Your task to perform on an android device: Search for the most popular coffee table on Crate & Barrel Image 0: 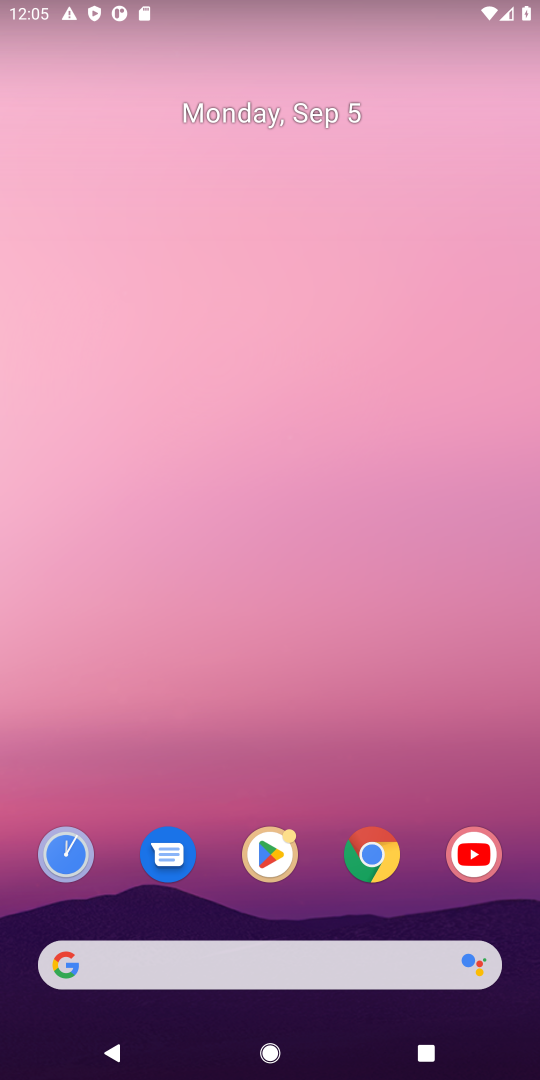
Step 0: press home button
Your task to perform on an android device: Search for the most popular coffee table on Crate & Barrel Image 1: 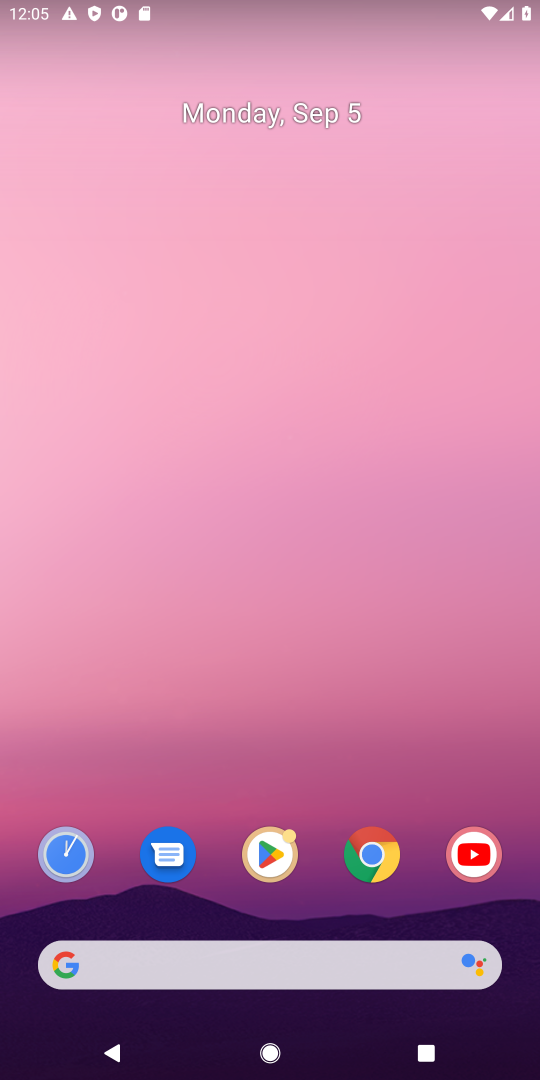
Step 1: click (377, 956)
Your task to perform on an android device: Search for the most popular coffee table on Crate & Barrel Image 2: 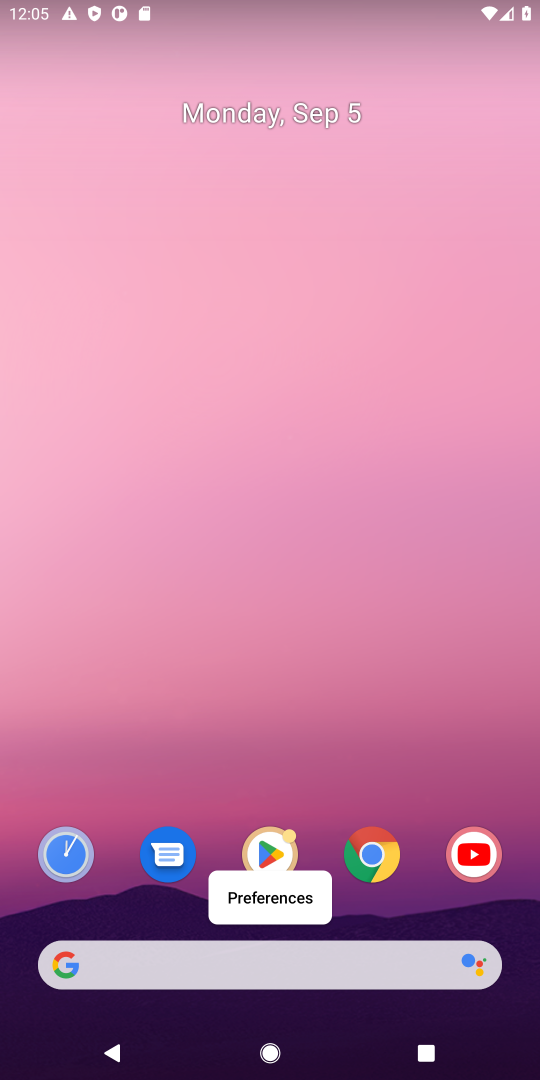
Step 2: click (220, 955)
Your task to perform on an android device: Search for the most popular coffee table on Crate & Barrel Image 3: 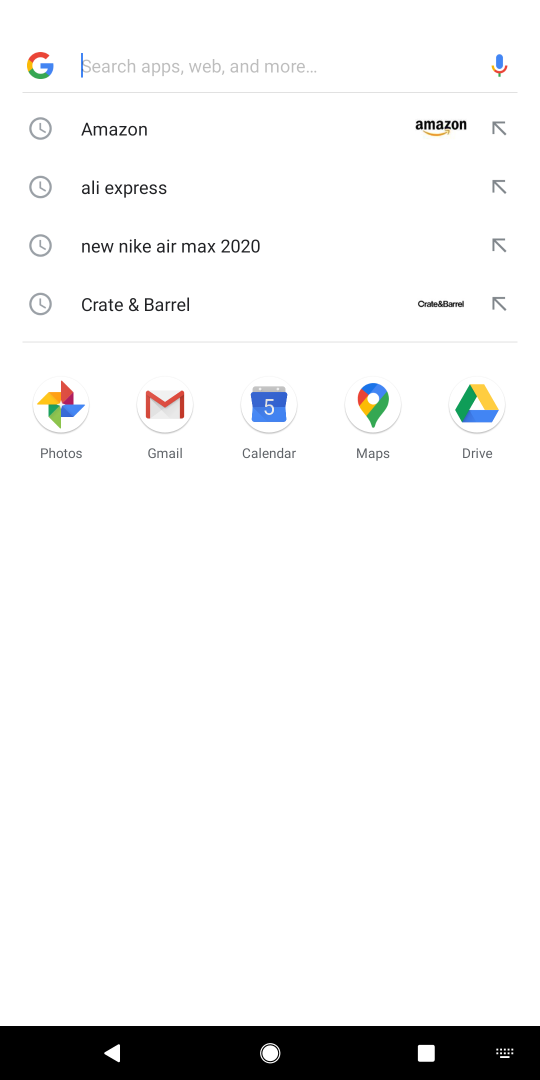
Step 3: type "crate barrel"
Your task to perform on an android device: Search for the most popular coffee table on Crate & Barrel Image 4: 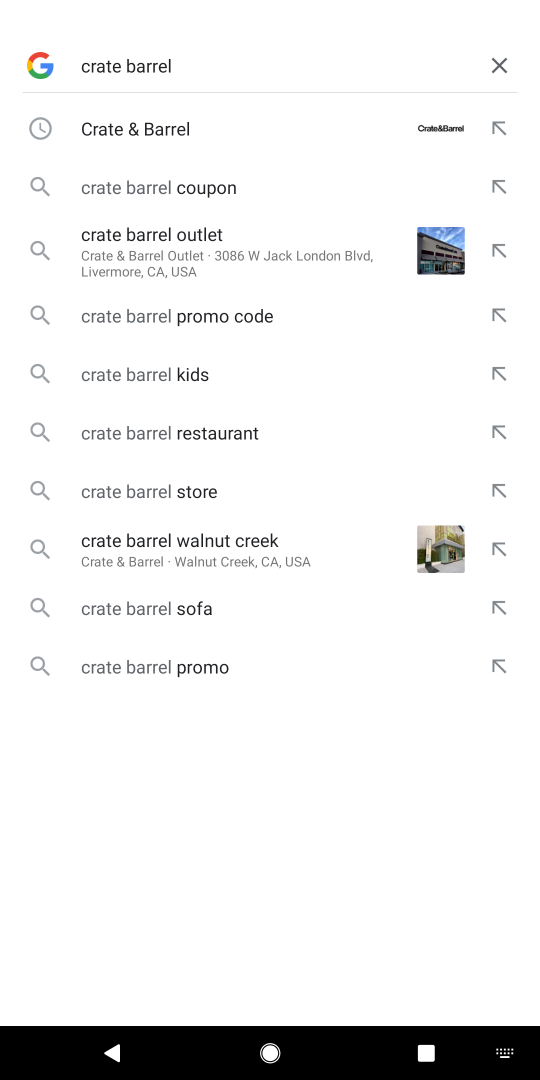
Step 4: press enter
Your task to perform on an android device: Search for the most popular coffee table on Crate & Barrel Image 5: 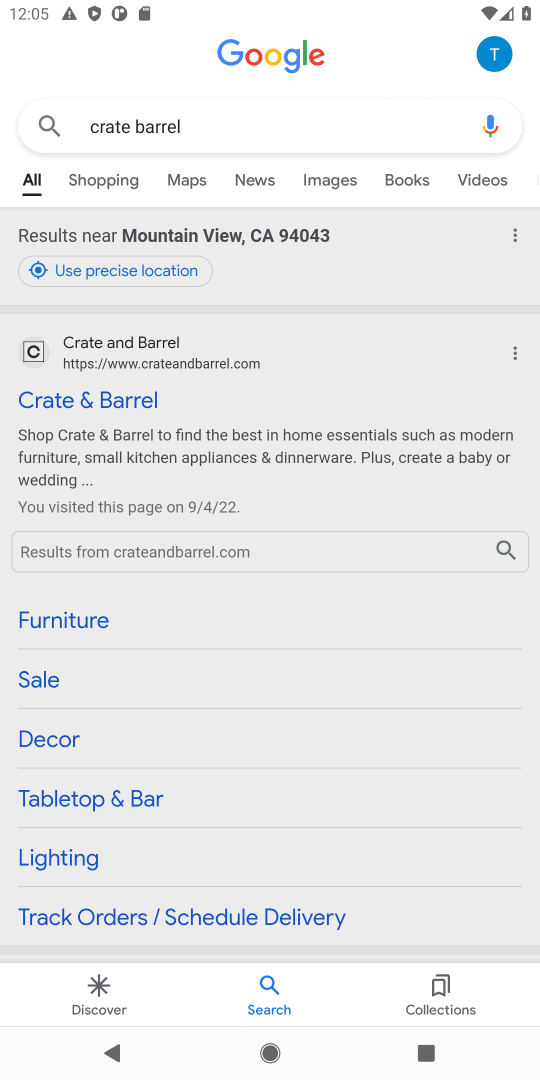
Step 5: click (134, 403)
Your task to perform on an android device: Search for the most popular coffee table on Crate & Barrel Image 6: 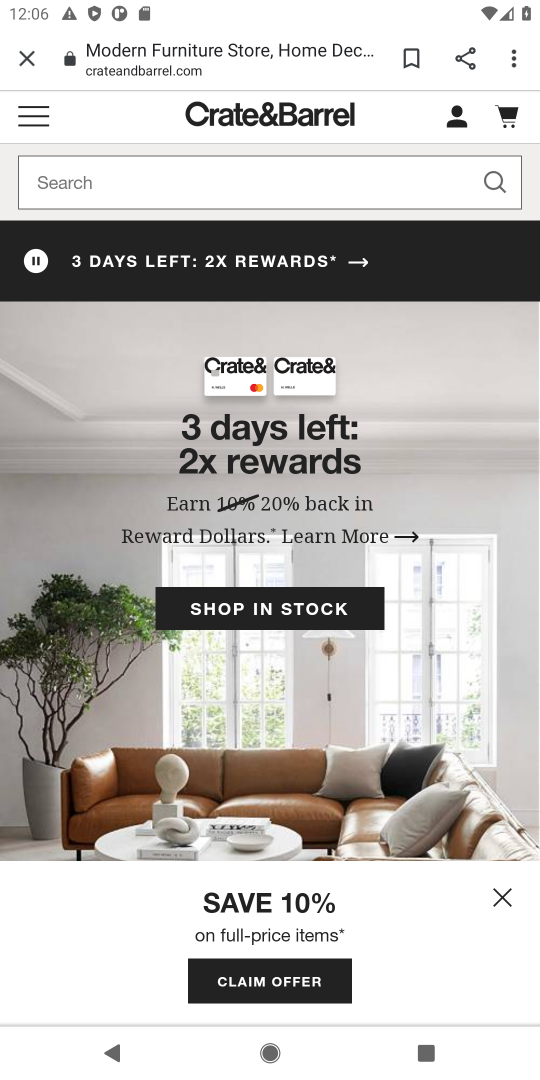
Step 6: click (181, 178)
Your task to perform on an android device: Search for the most popular coffee table on Crate & Barrel Image 7: 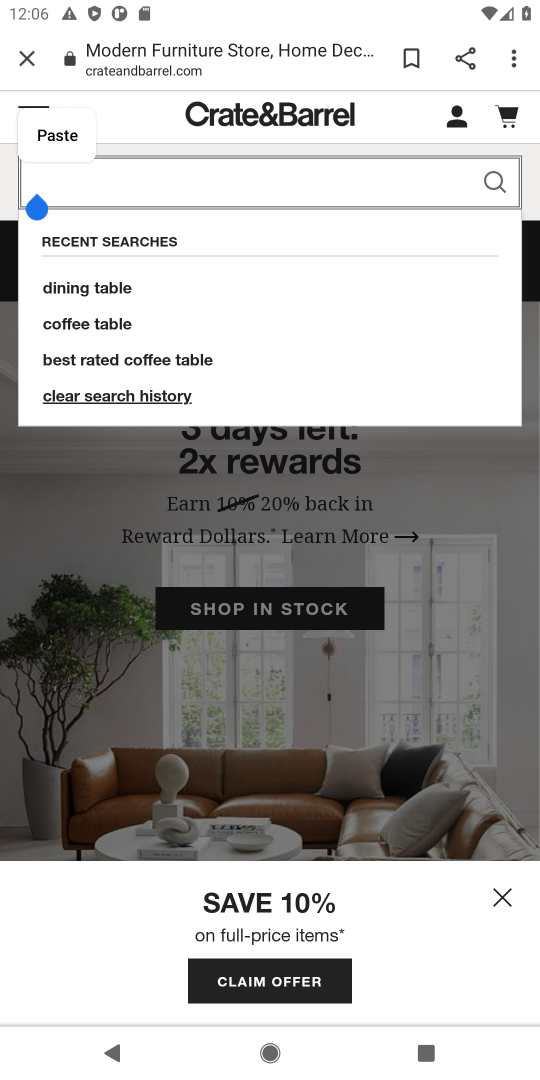
Step 7: press enter
Your task to perform on an android device: Search for the most popular coffee table on Crate & Barrel Image 8: 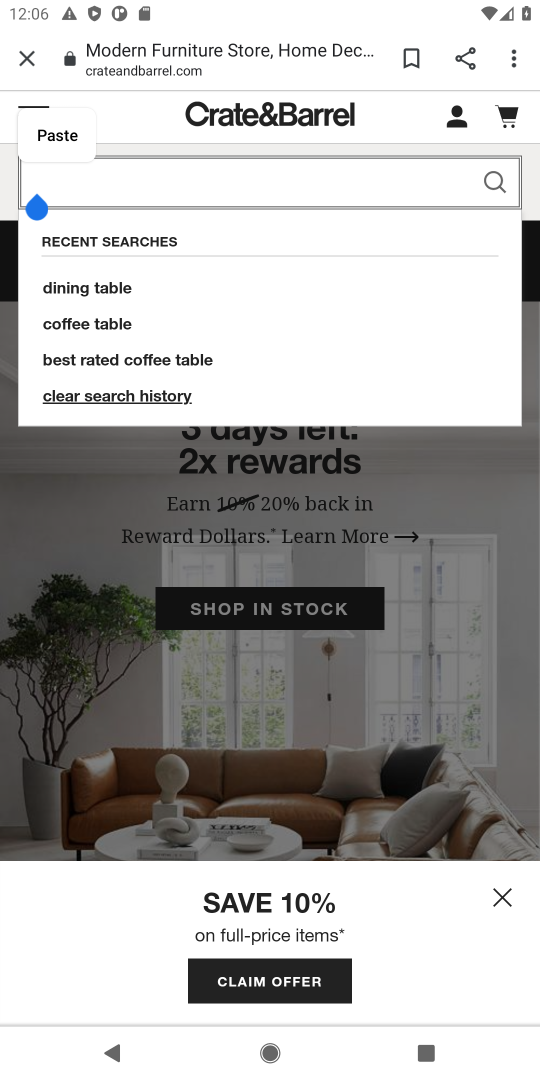
Step 8: type "most popular coffee table"
Your task to perform on an android device: Search for the most popular coffee table on Crate & Barrel Image 9: 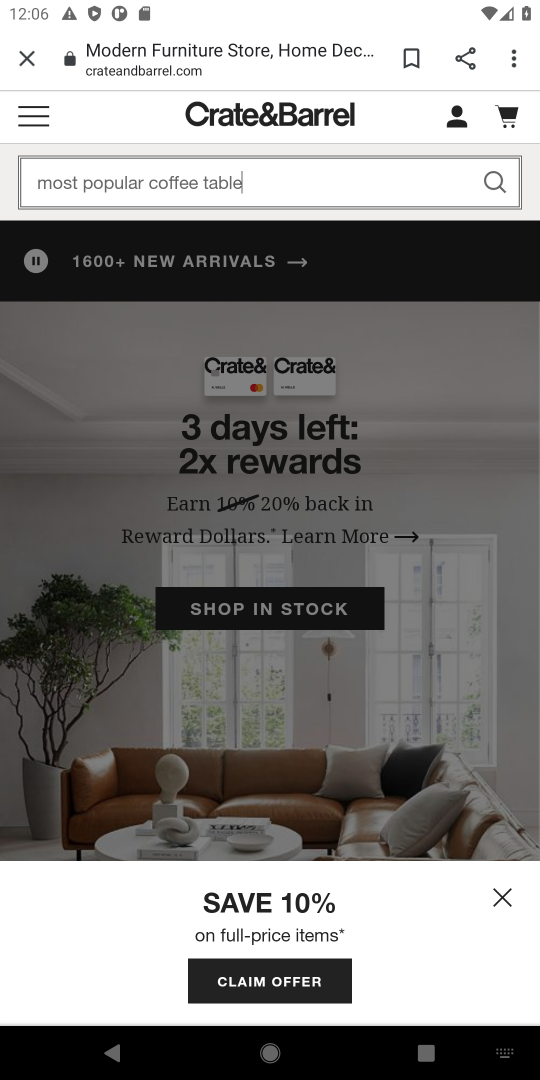
Step 9: click (493, 170)
Your task to perform on an android device: Search for the most popular coffee table on Crate & Barrel Image 10: 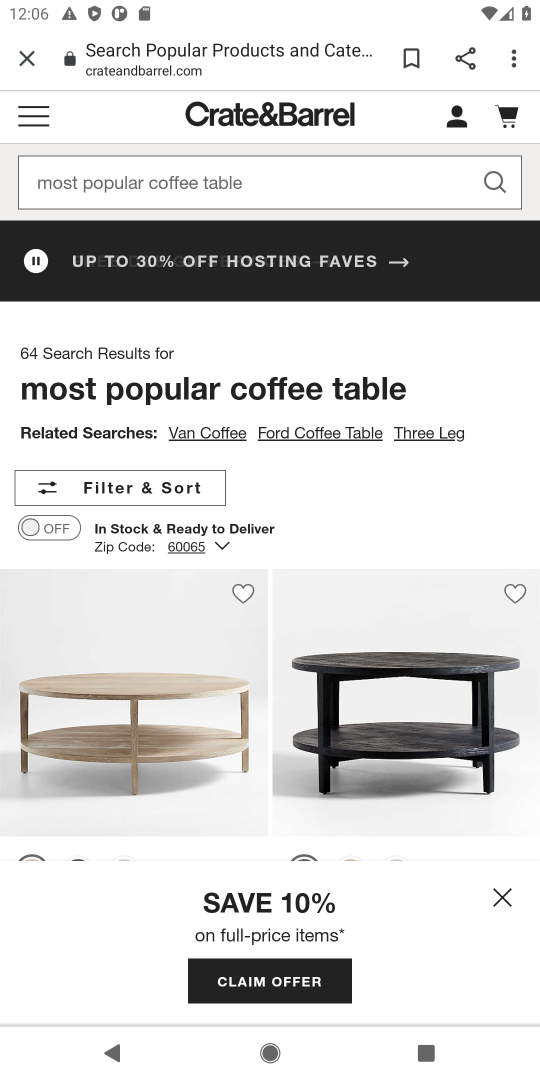
Step 10: task complete